Your task to perform on an android device: Open Chrome and go to settings Image 0: 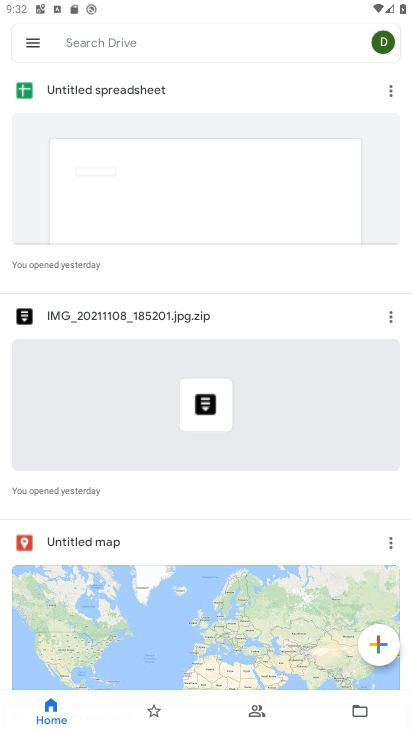
Step 0: press home button
Your task to perform on an android device: Open Chrome and go to settings Image 1: 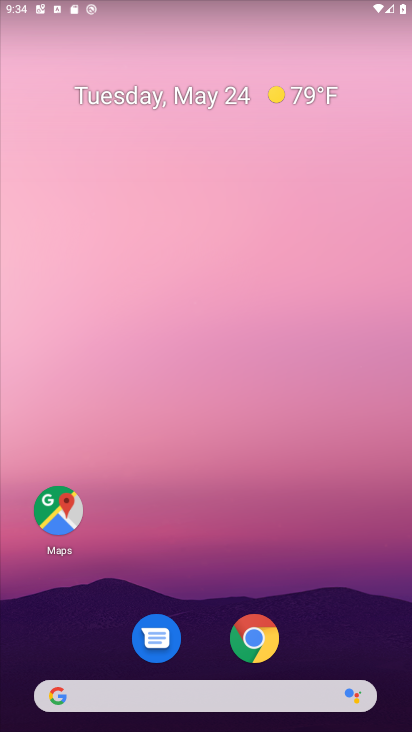
Step 1: click (258, 634)
Your task to perform on an android device: Open Chrome and go to settings Image 2: 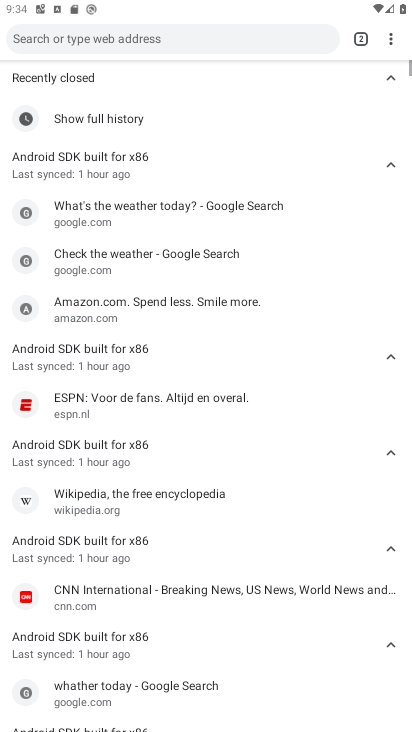
Step 2: click (392, 41)
Your task to perform on an android device: Open Chrome and go to settings Image 3: 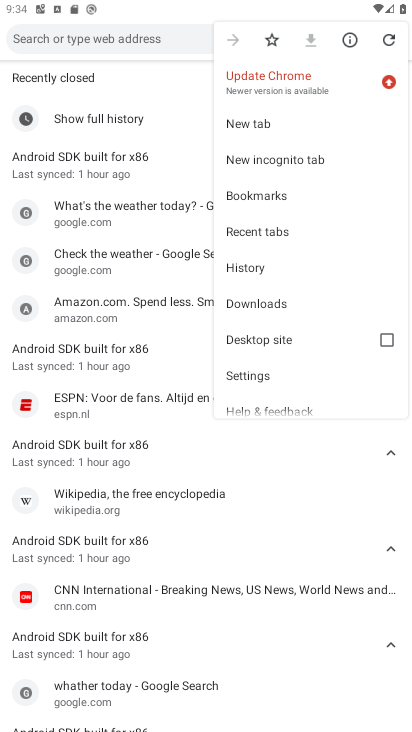
Step 3: click (296, 382)
Your task to perform on an android device: Open Chrome and go to settings Image 4: 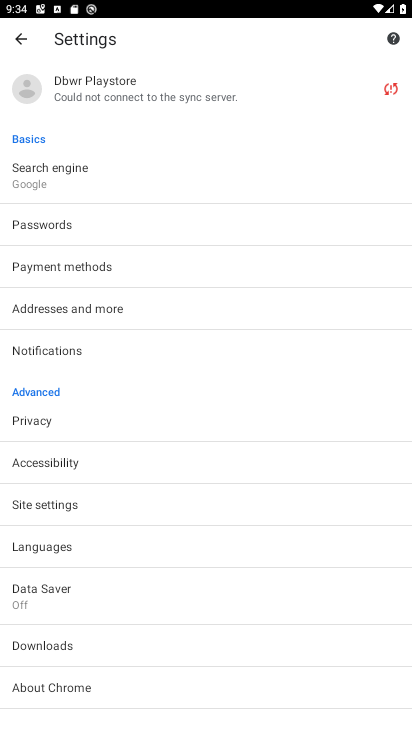
Step 4: task complete